Your task to perform on an android device: toggle wifi Image 0: 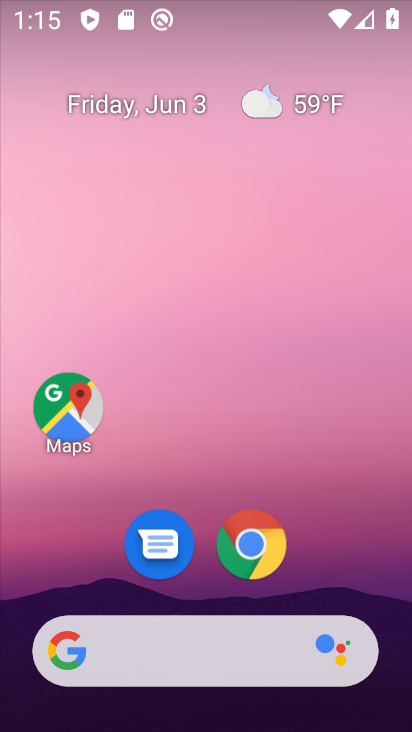
Step 0: drag from (229, 613) to (160, 26)
Your task to perform on an android device: toggle wifi Image 1: 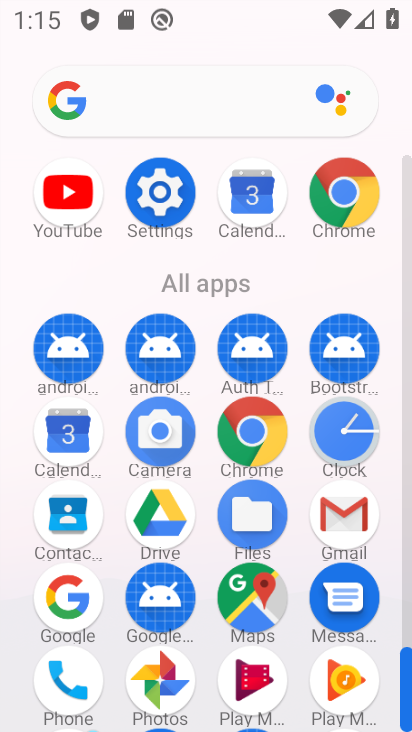
Step 1: click (148, 218)
Your task to perform on an android device: toggle wifi Image 2: 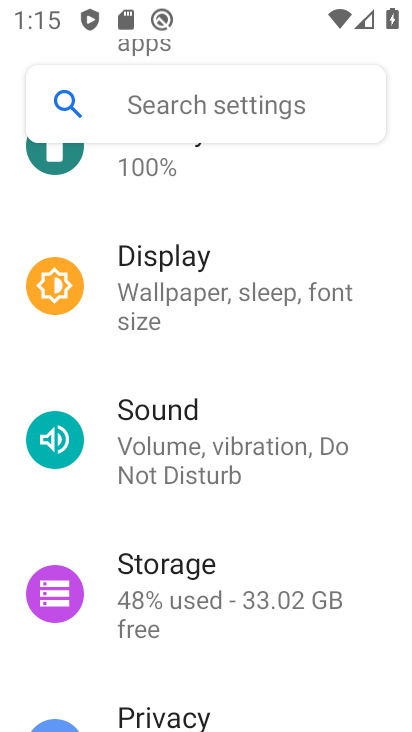
Step 2: drag from (148, 218) to (139, 632)
Your task to perform on an android device: toggle wifi Image 3: 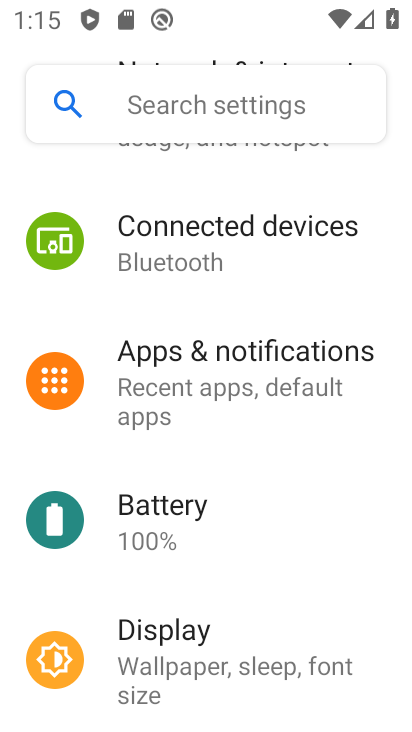
Step 3: click (189, 166)
Your task to perform on an android device: toggle wifi Image 4: 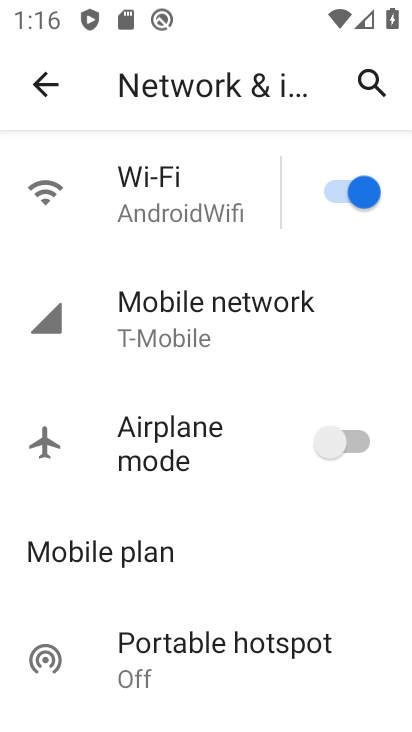
Step 4: click (184, 232)
Your task to perform on an android device: toggle wifi Image 5: 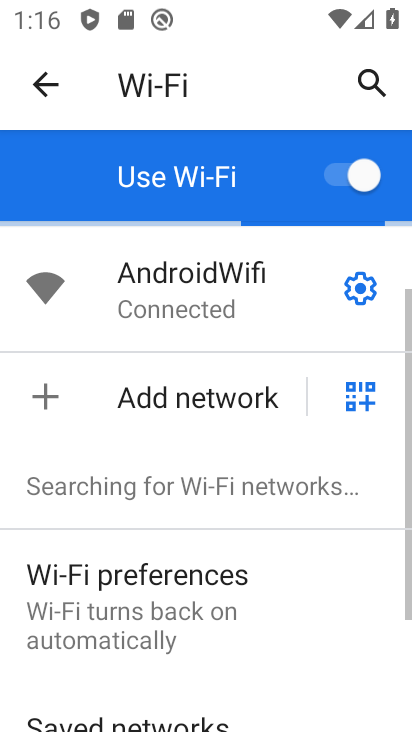
Step 5: click (357, 174)
Your task to perform on an android device: toggle wifi Image 6: 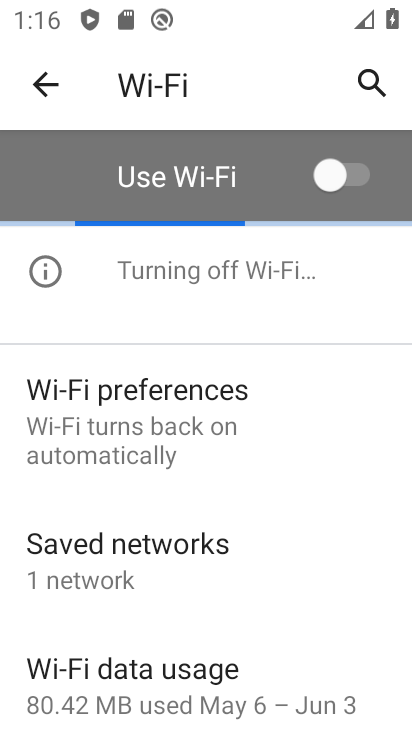
Step 6: task complete